Your task to perform on an android device: delete a single message in the gmail app Image 0: 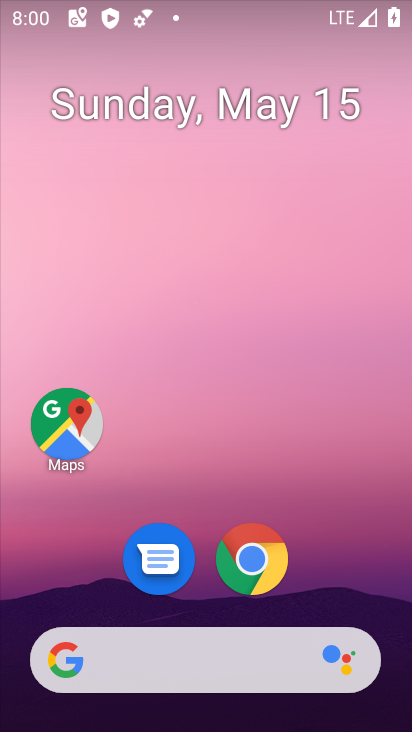
Step 0: drag from (351, 561) to (327, 254)
Your task to perform on an android device: delete a single message in the gmail app Image 1: 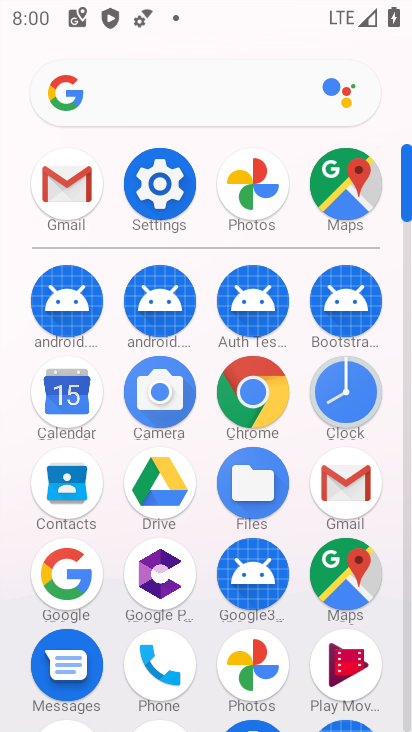
Step 1: click (341, 495)
Your task to perform on an android device: delete a single message in the gmail app Image 2: 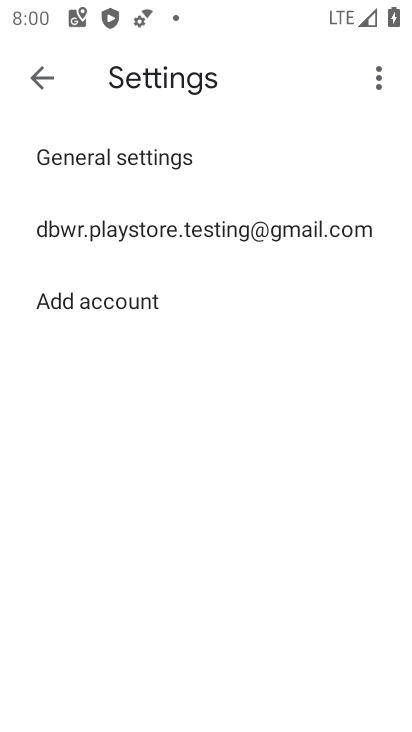
Step 2: click (35, 88)
Your task to perform on an android device: delete a single message in the gmail app Image 3: 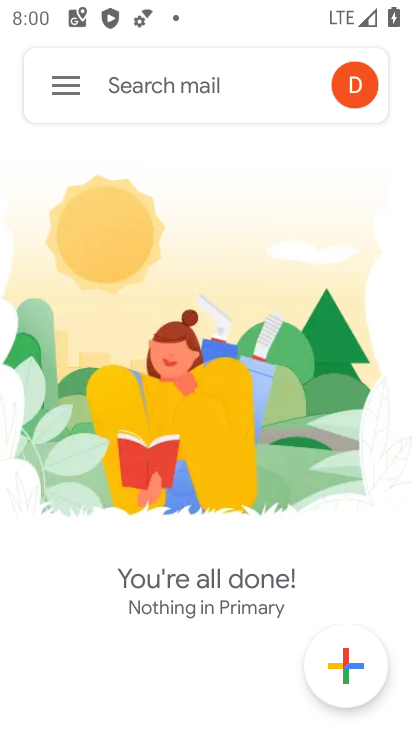
Step 3: click (50, 95)
Your task to perform on an android device: delete a single message in the gmail app Image 4: 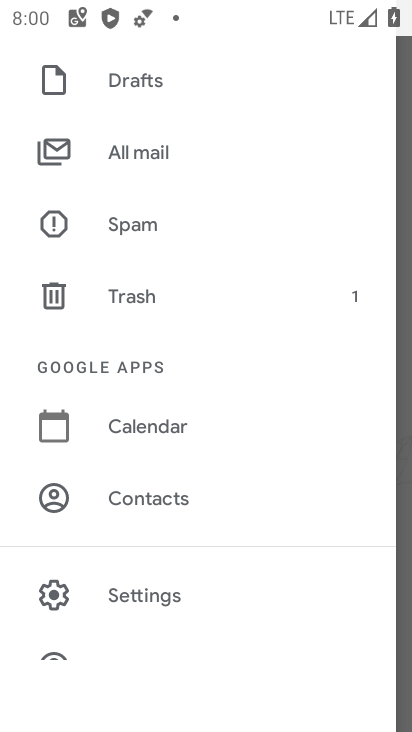
Step 4: click (148, 149)
Your task to perform on an android device: delete a single message in the gmail app Image 5: 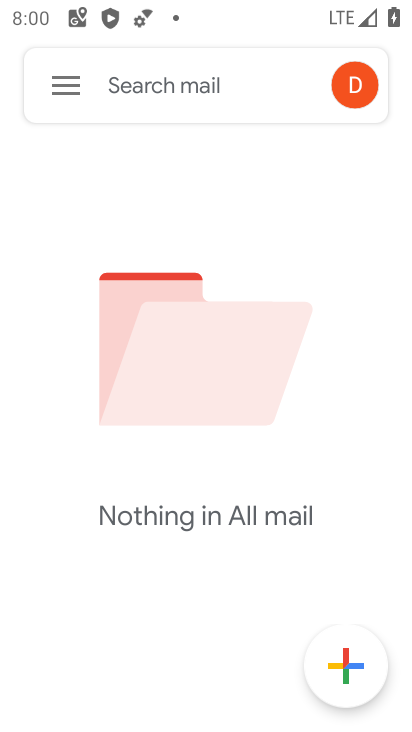
Step 5: task complete